Your task to perform on an android device: remove spam from my inbox in the gmail app Image 0: 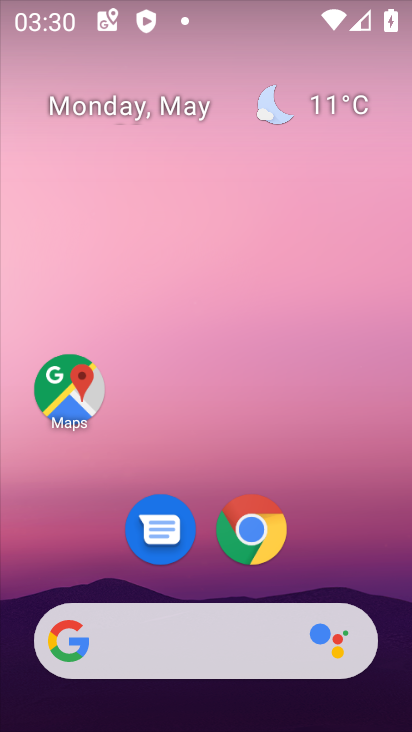
Step 0: drag from (341, 556) to (287, 83)
Your task to perform on an android device: remove spam from my inbox in the gmail app Image 1: 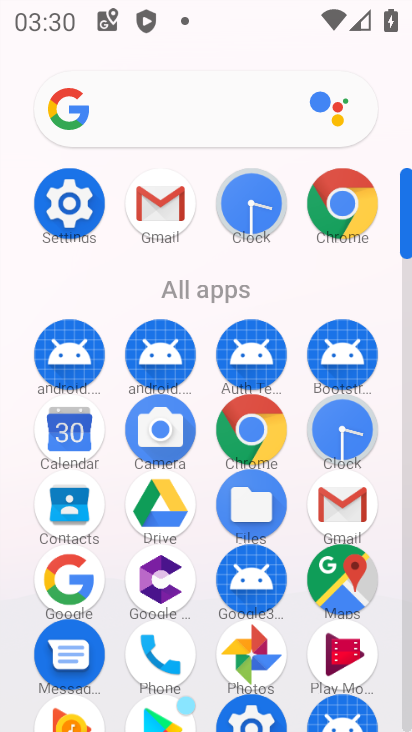
Step 1: click (342, 198)
Your task to perform on an android device: remove spam from my inbox in the gmail app Image 2: 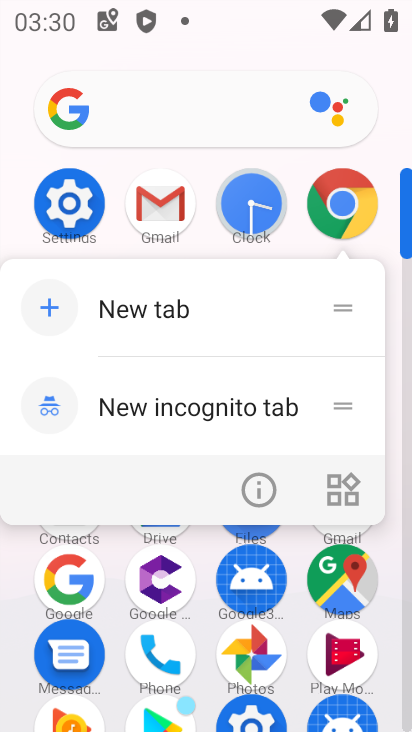
Step 2: click (346, 199)
Your task to perform on an android device: remove spam from my inbox in the gmail app Image 3: 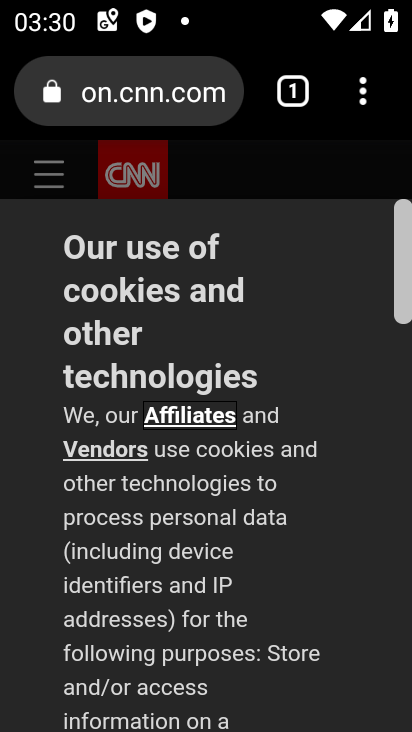
Step 3: press home button
Your task to perform on an android device: remove spam from my inbox in the gmail app Image 4: 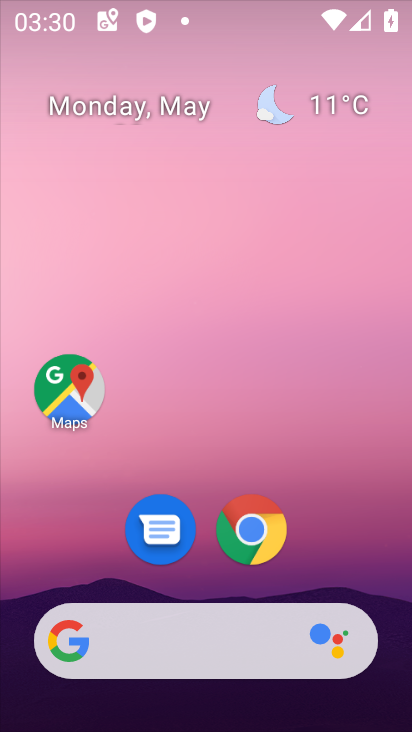
Step 4: drag from (396, 443) to (279, 201)
Your task to perform on an android device: remove spam from my inbox in the gmail app Image 5: 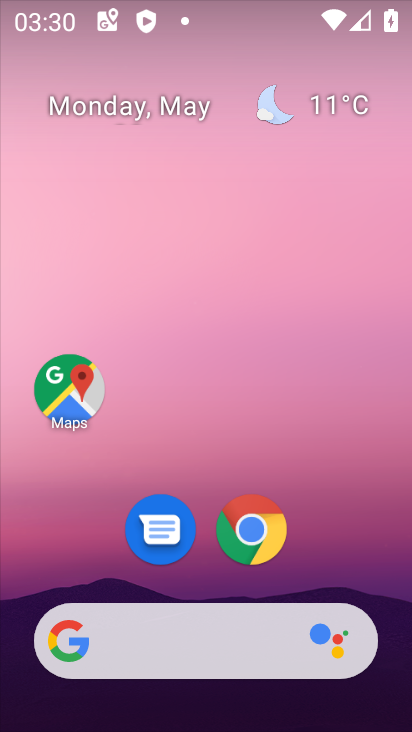
Step 5: drag from (354, 531) to (172, 143)
Your task to perform on an android device: remove spam from my inbox in the gmail app Image 6: 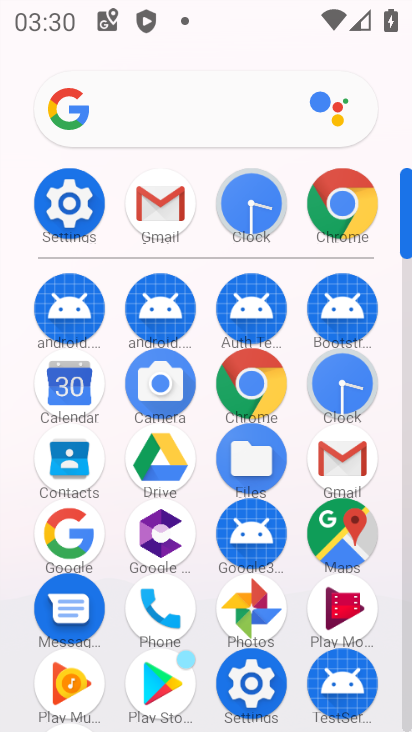
Step 6: click (154, 193)
Your task to perform on an android device: remove spam from my inbox in the gmail app Image 7: 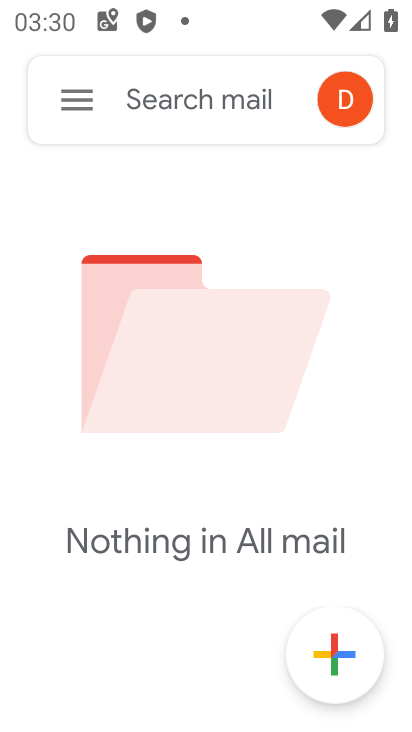
Step 7: click (74, 103)
Your task to perform on an android device: remove spam from my inbox in the gmail app Image 8: 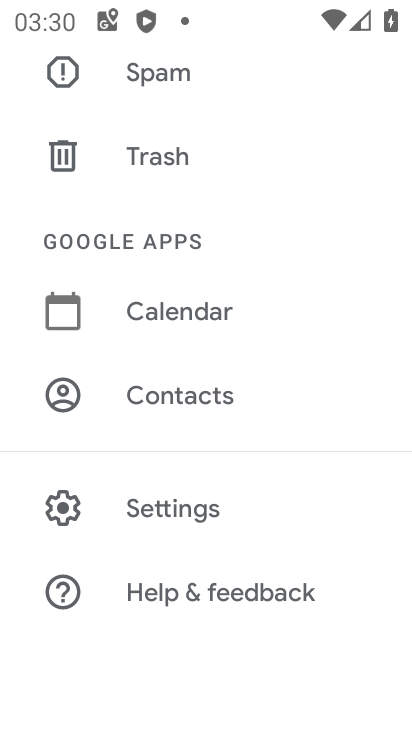
Step 8: drag from (157, 192) to (207, 459)
Your task to perform on an android device: remove spam from my inbox in the gmail app Image 9: 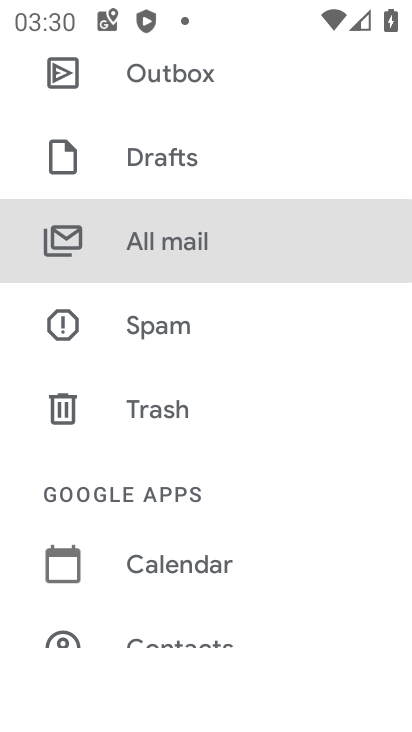
Step 9: click (158, 328)
Your task to perform on an android device: remove spam from my inbox in the gmail app Image 10: 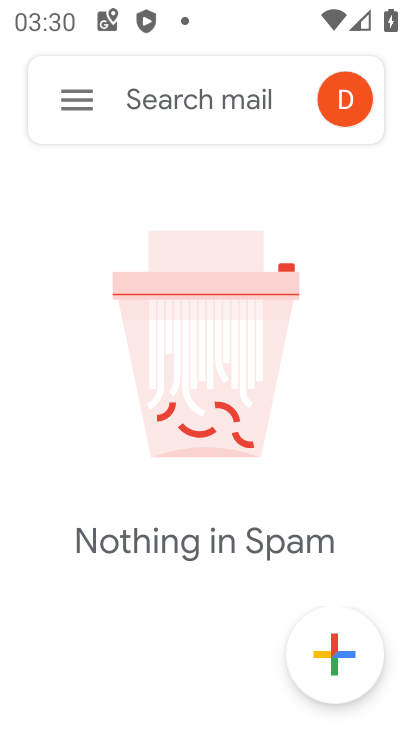
Step 10: task complete